Your task to perform on an android device: turn off improve location accuracy Image 0: 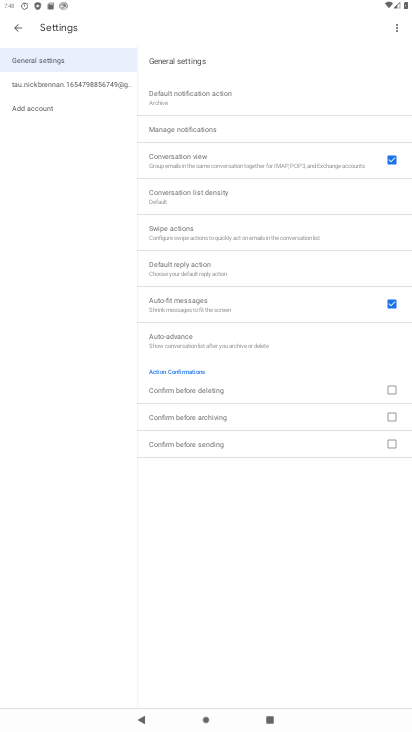
Step 0: press home button
Your task to perform on an android device: turn off improve location accuracy Image 1: 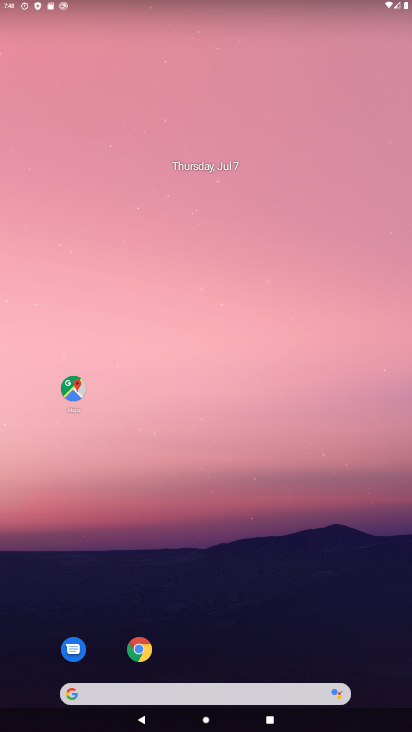
Step 1: drag from (223, 632) to (289, 156)
Your task to perform on an android device: turn off improve location accuracy Image 2: 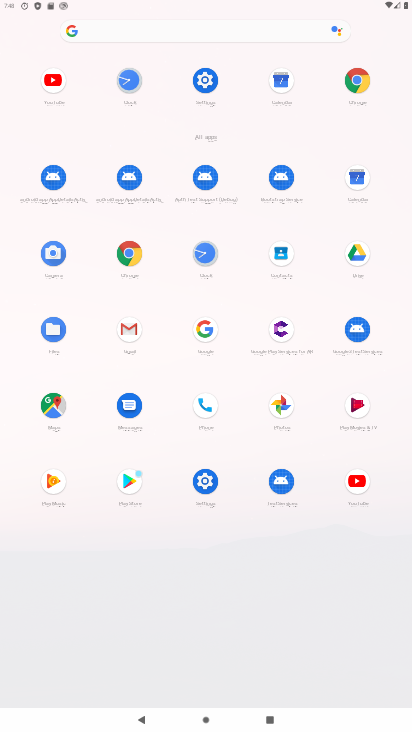
Step 2: click (201, 74)
Your task to perform on an android device: turn off improve location accuracy Image 3: 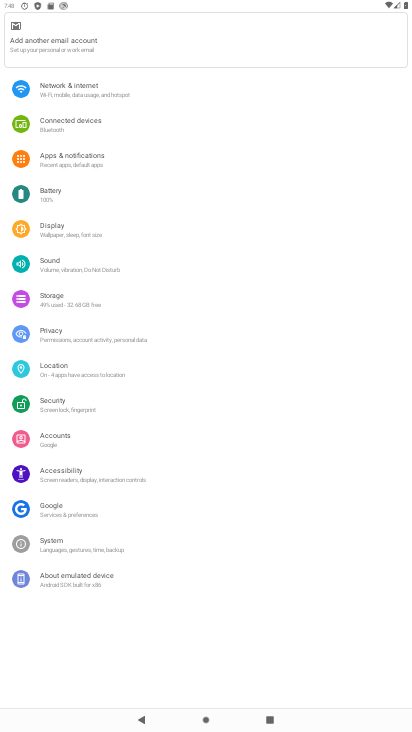
Step 3: click (74, 370)
Your task to perform on an android device: turn off improve location accuracy Image 4: 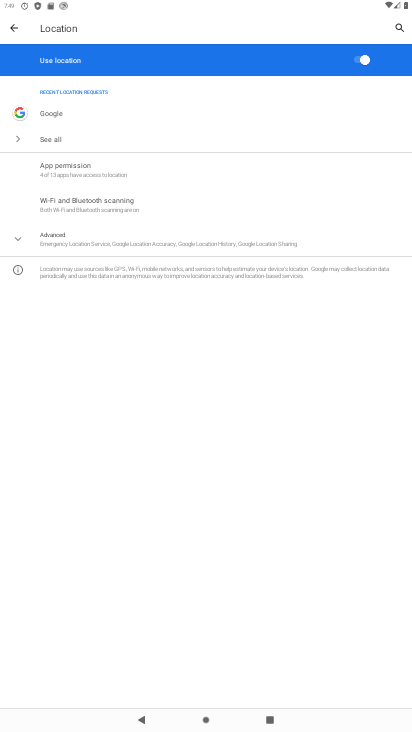
Step 4: click (30, 232)
Your task to perform on an android device: turn off improve location accuracy Image 5: 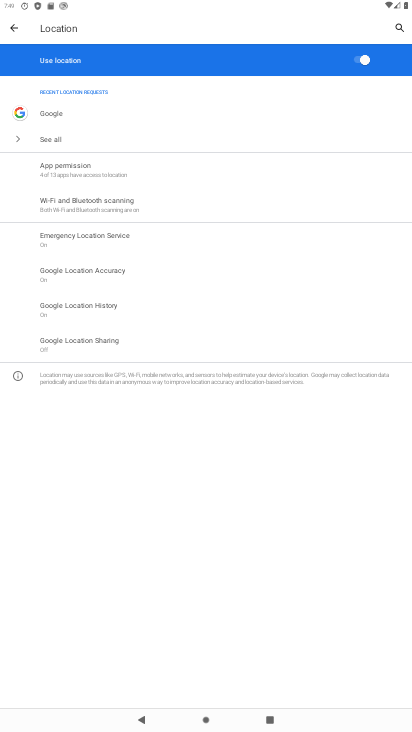
Step 5: click (88, 270)
Your task to perform on an android device: turn off improve location accuracy Image 6: 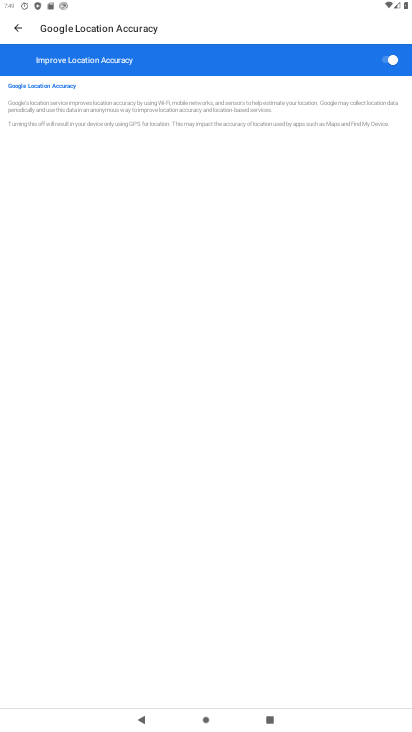
Step 6: click (386, 55)
Your task to perform on an android device: turn off improve location accuracy Image 7: 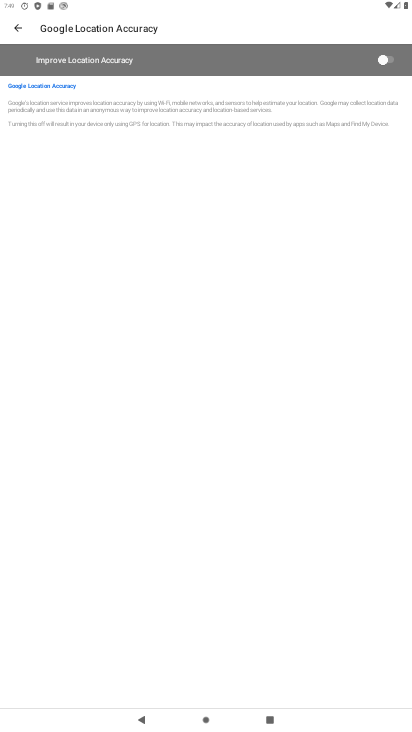
Step 7: task complete